Your task to perform on an android device: add a label to a message in the gmail app Image 0: 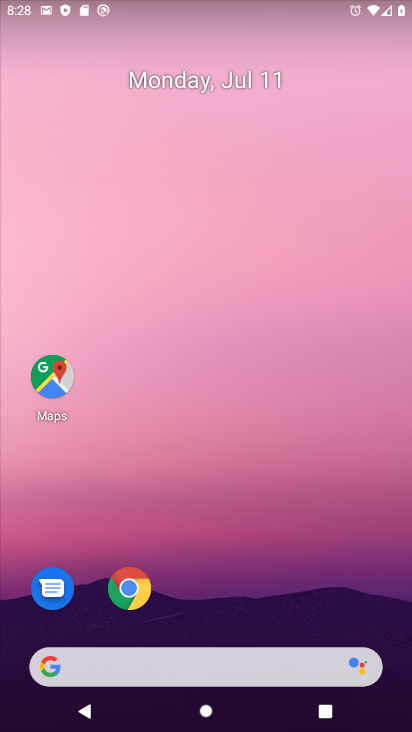
Step 0: drag from (220, 666) to (369, 43)
Your task to perform on an android device: add a label to a message in the gmail app Image 1: 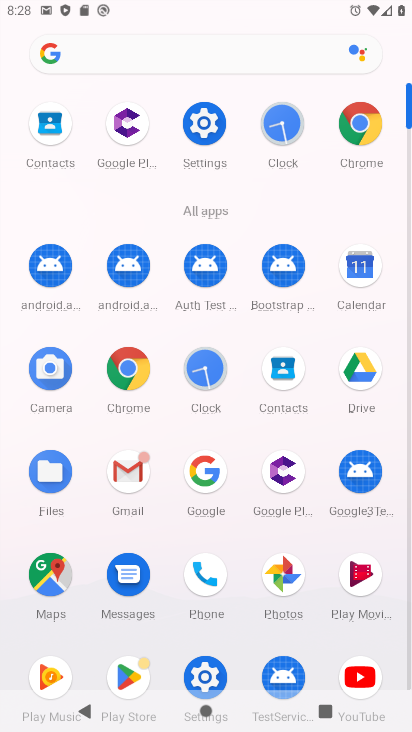
Step 1: click (136, 475)
Your task to perform on an android device: add a label to a message in the gmail app Image 2: 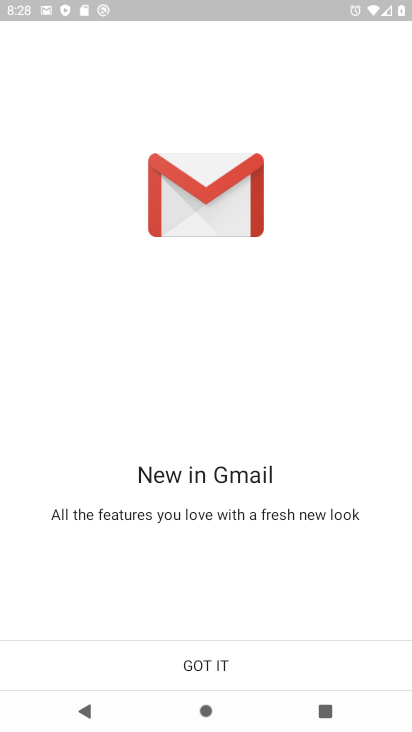
Step 2: click (191, 672)
Your task to perform on an android device: add a label to a message in the gmail app Image 3: 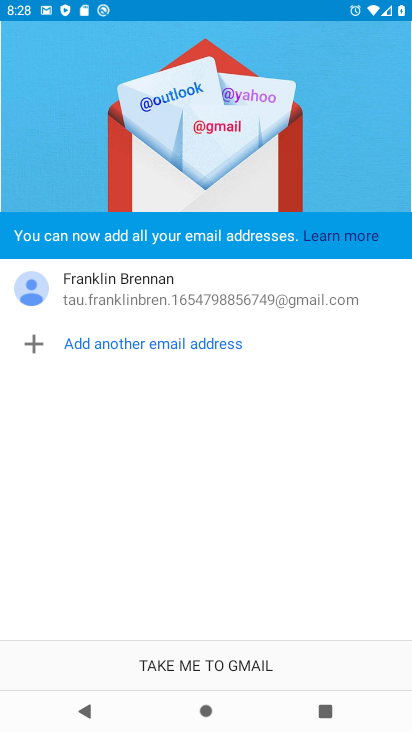
Step 3: click (201, 663)
Your task to perform on an android device: add a label to a message in the gmail app Image 4: 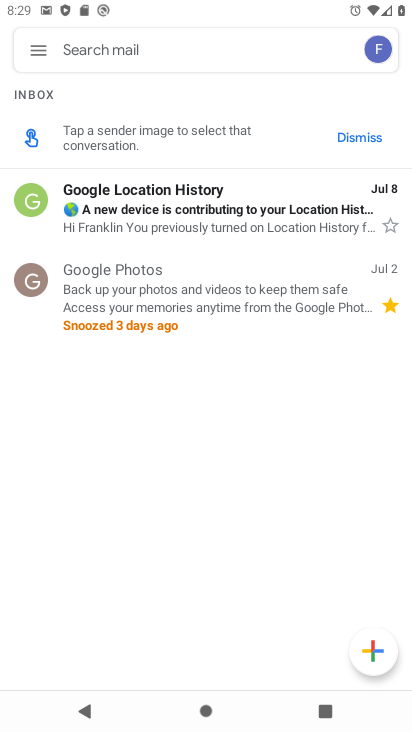
Step 4: click (172, 204)
Your task to perform on an android device: add a label to a message in the gmail app Image 5: 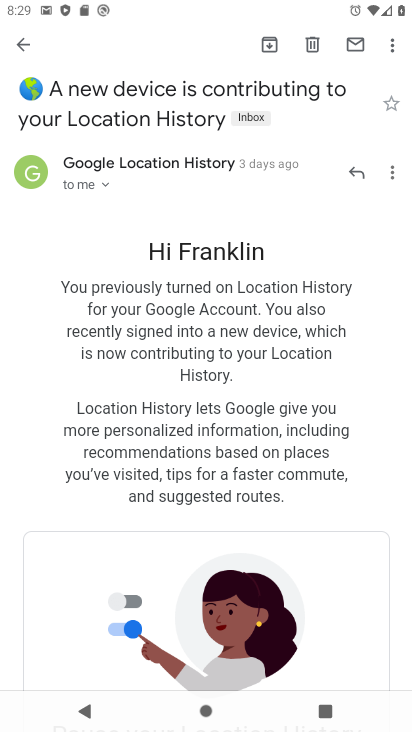
Step 5: click (259, 118)
Your task to perform on an android device: add a label to a message in the gmail app Image 6: 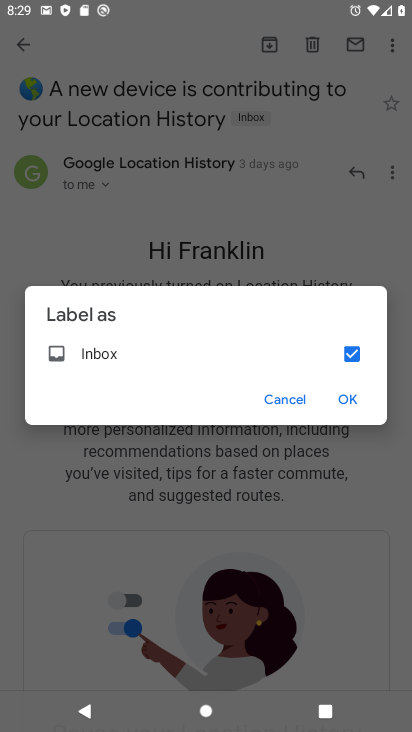
Step 6: task complete